Your task to perform on an android device: Open the web browser Image 0: 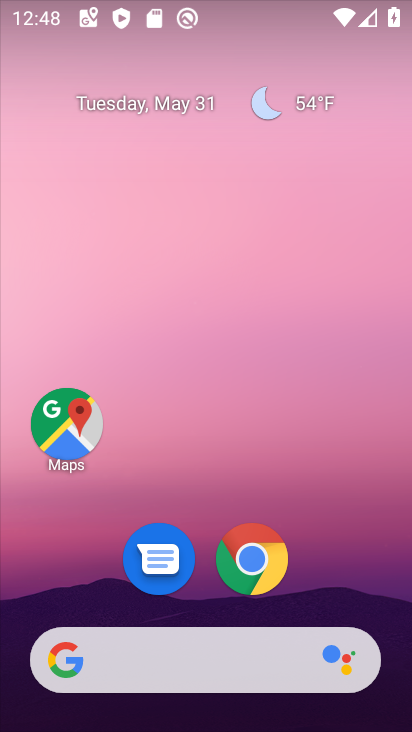
Step 0: click (292, 563)
Your task to perform on an android device: Open the web browser Image 1: 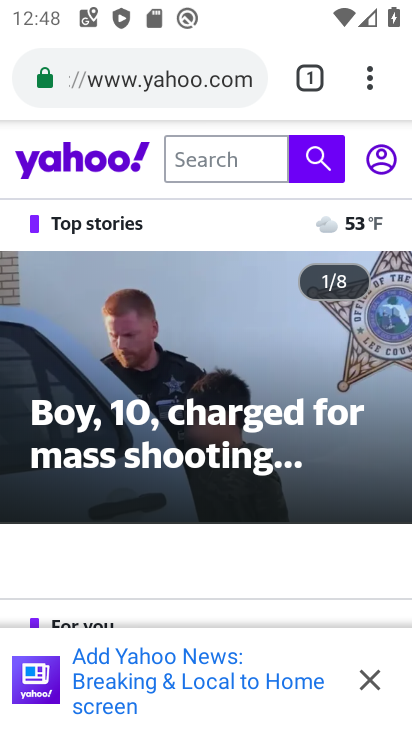
Step 1: task complete